Your task to perform on an android device: Go to Wikipedia Image 0: 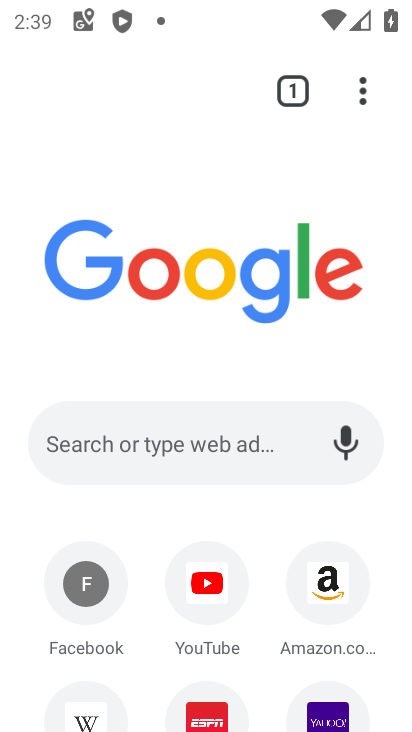
Step 0: click (85, 702)
Your task to perform on an android device: Go to Wikipedia Image 1: 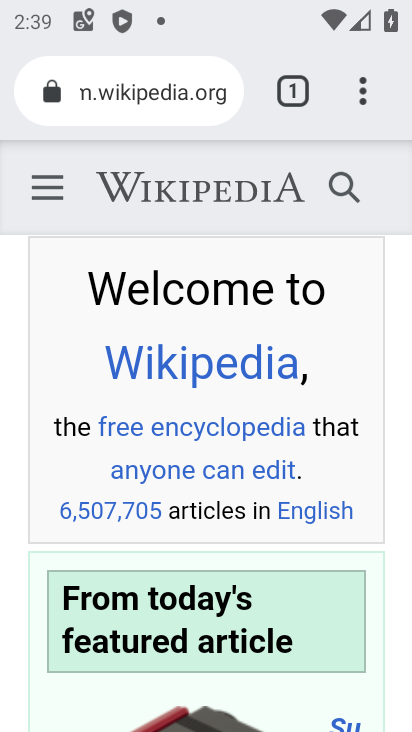
Step 1: task complete